Your task to perform on an android device: Open accessibility settings Image 0: 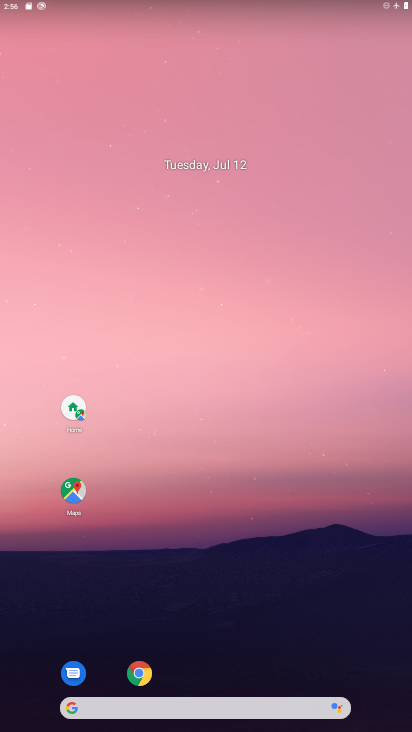
Step 0: drag from (272, 662) to (266, 446)
Your task to perform on an android device: Open accessibility settings Image 1: 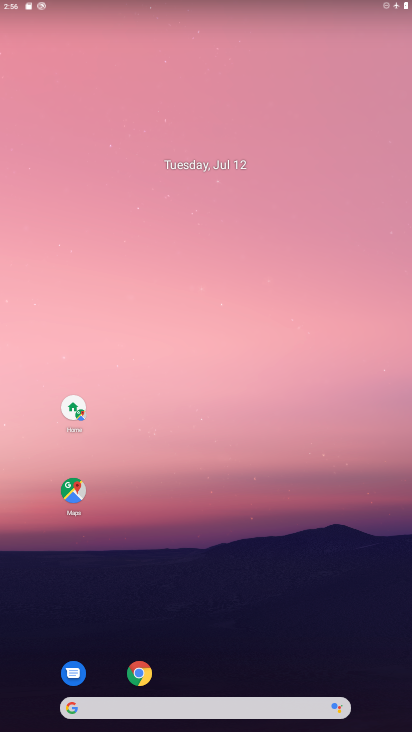
Step 1: drag from (208, 619) to (226, 307)
Your task to perform on an android device: Open accessibility settings Image 2: 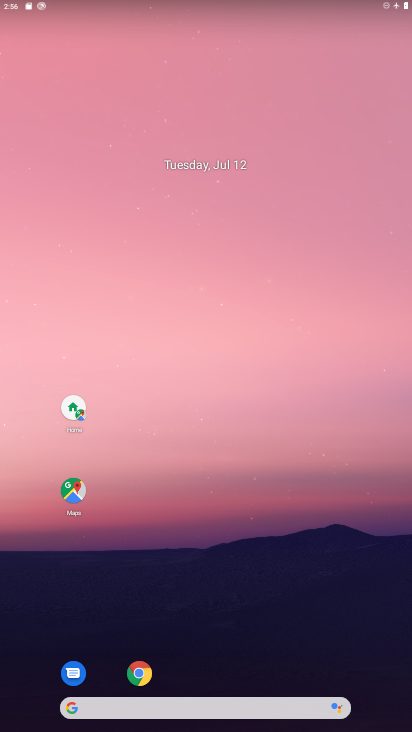
Step 2: drag from (306, 699) to (287, 230)
Your task to perform on an android device: Open accessibility settings Image 3: 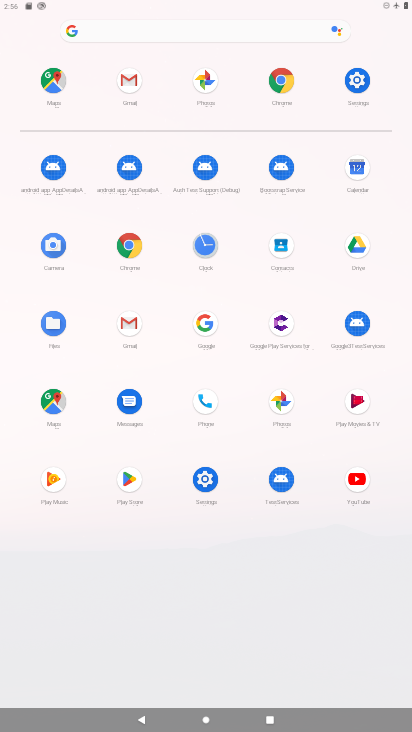
Step 3: click (343, 76)
Your task to perform on an android device: Open accessibility settings Image 4: 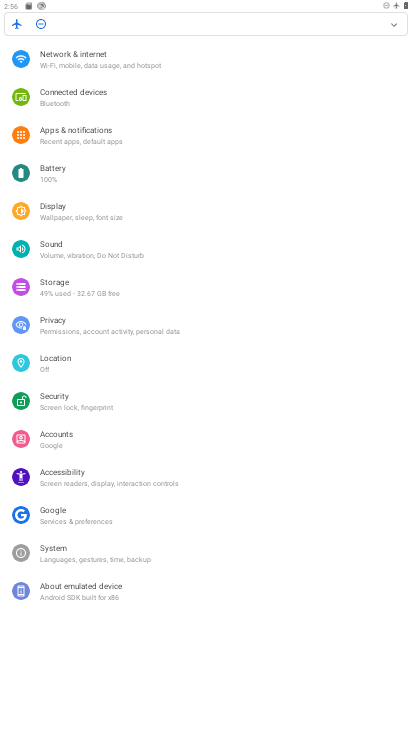
Step 4: click (79, 481)
Your task to perform on an android device: Open accessibility settings Image 5: 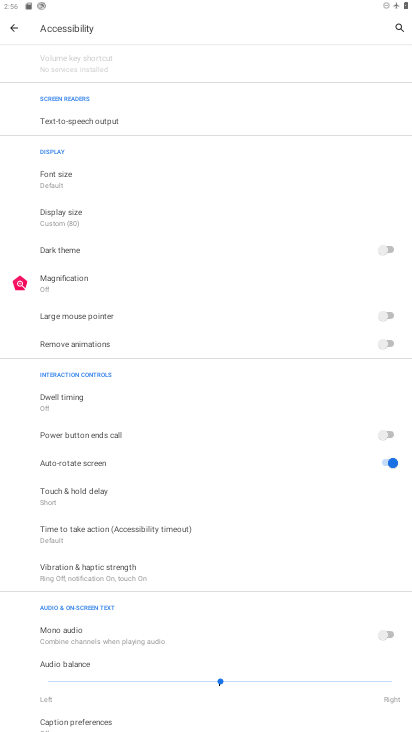
Step 5: task complete